Your task to perform on an android device: set the stopwatch Image 0: 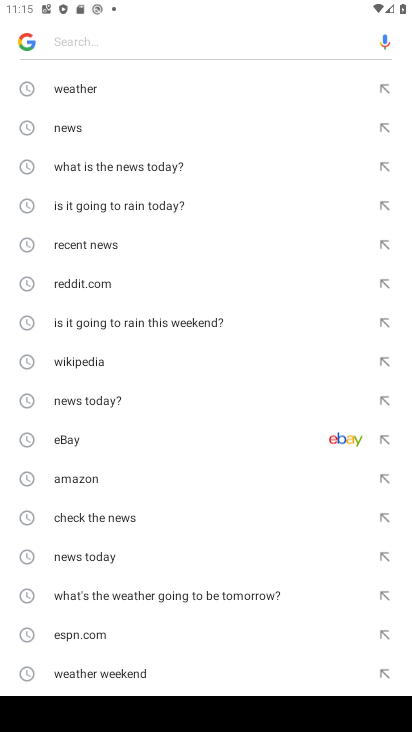
Step 0: press home button
Your task to perform on an android device: set the stopwatch Image 1: 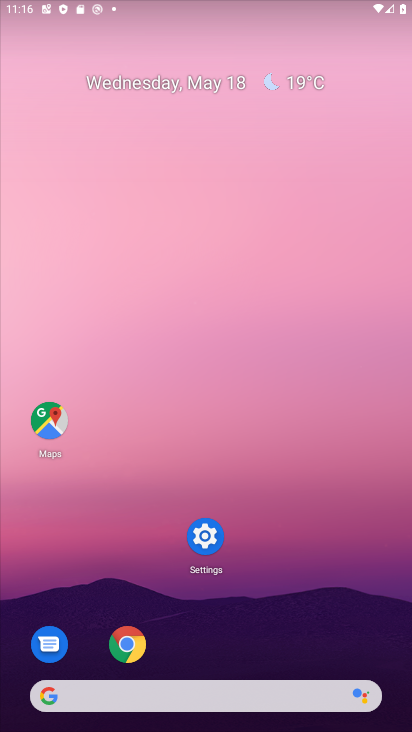
Step 1: click (127, 655)
Your task to perform on an android device: set the stopwatch Image 2: 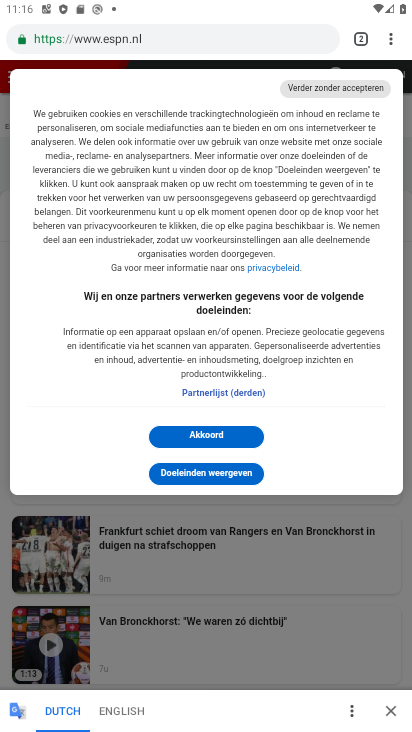
Step 2: task complete